Your task to perform on an android device: see creations saved in the google photos Image 0: 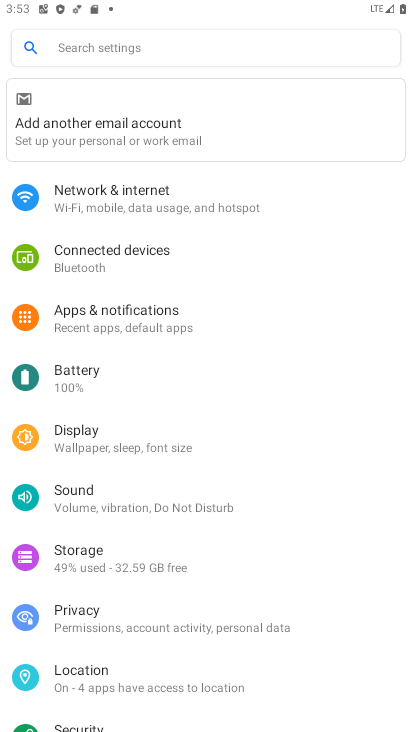
Step 0: press home button
Your task to perform on an android device: see creations saved in the google photos Image 1: 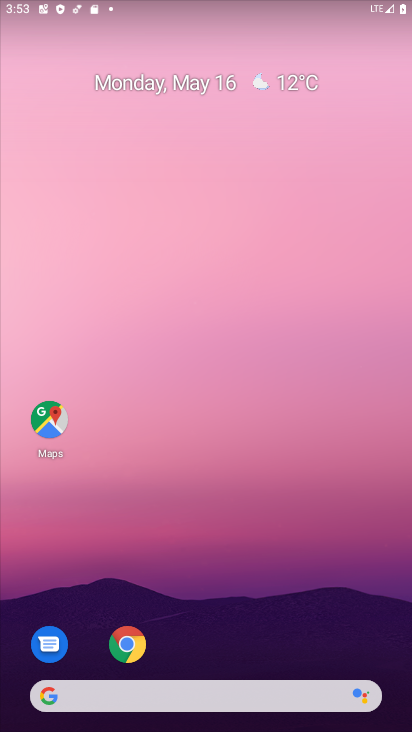
Step 1: drag from (224, 617) to (266, 52)
Your task to perform on an android device: see creations saved in the google photos Image 2: 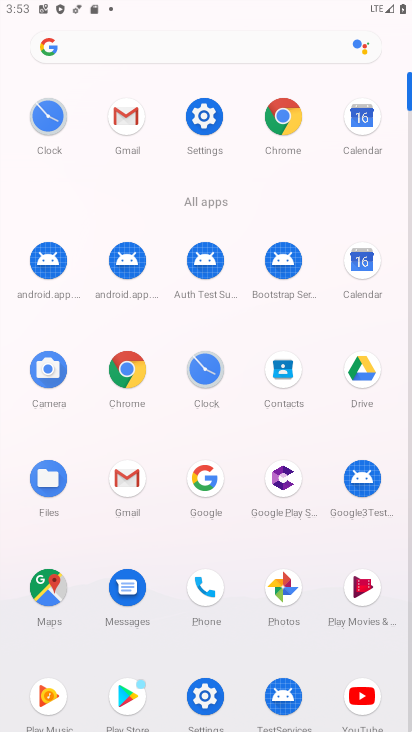
Step 2: click (288, 601)
Your task to perform on an android device: see creations saved in the google photos Image 3: 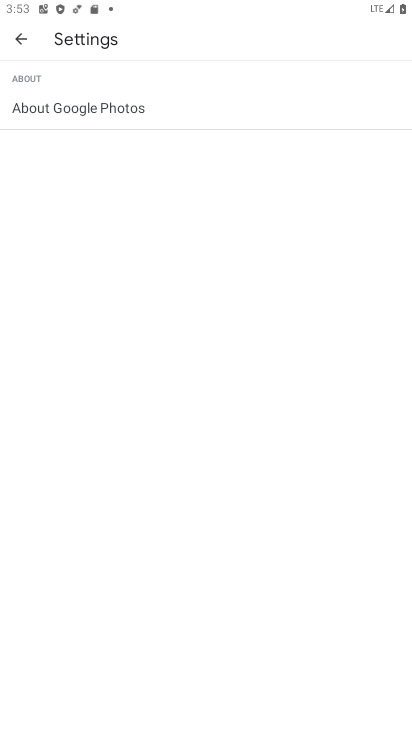
Step 3: click (25, 34)
Your task to perform on an android device: see creations saved in the google photos Image 4: 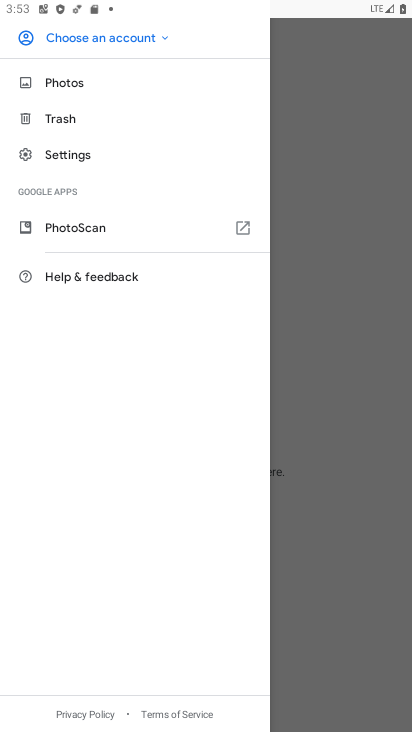
Step 4: click (350, 342)
Your task to perform on an android device: see creations saved in the google photos Image 5: 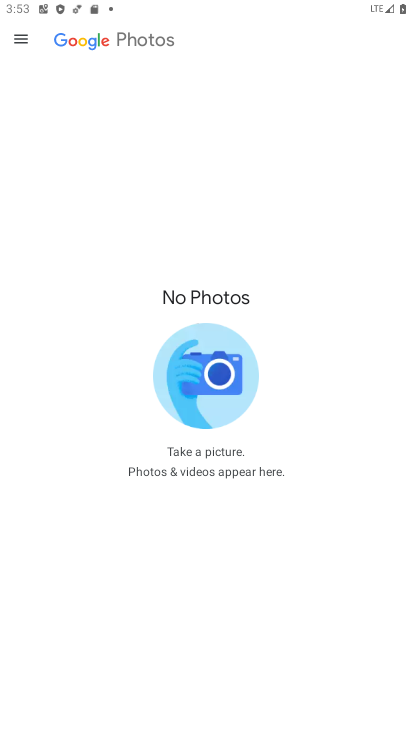
Step 5: click (27, 39)
Your task to perform on an android device: see creations saved in the google photos Image 6: 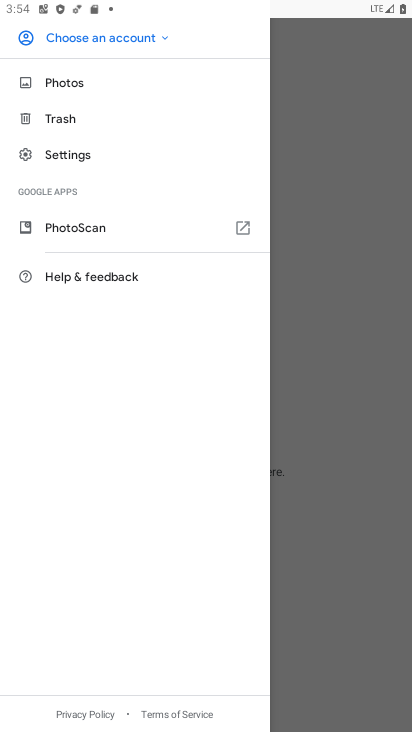
Step 6: task complete